Your task to perform on an android device: Open Amazon Image 0: 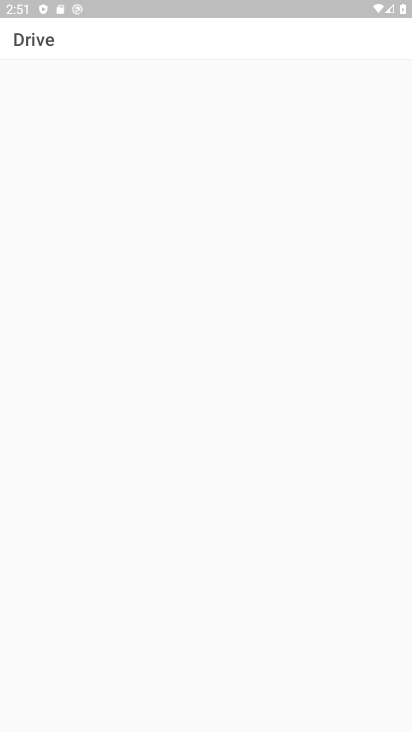
Step 0: press home button
Your task to perform on an android device: Open Amazon Image 1: 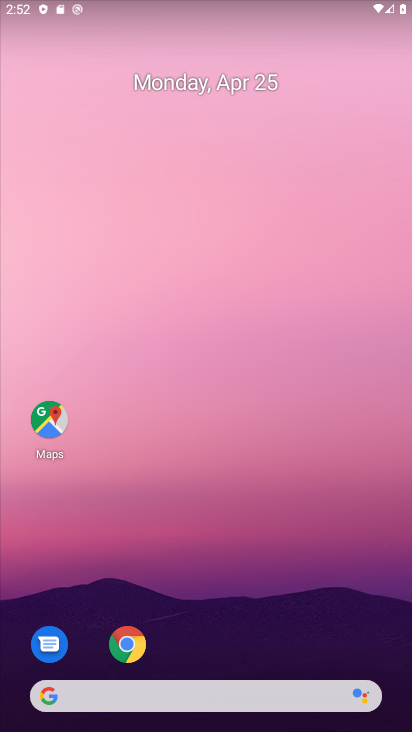
Step 1: click (129, 641)
Your task to perform on an android device: Open Amazon Image 2: 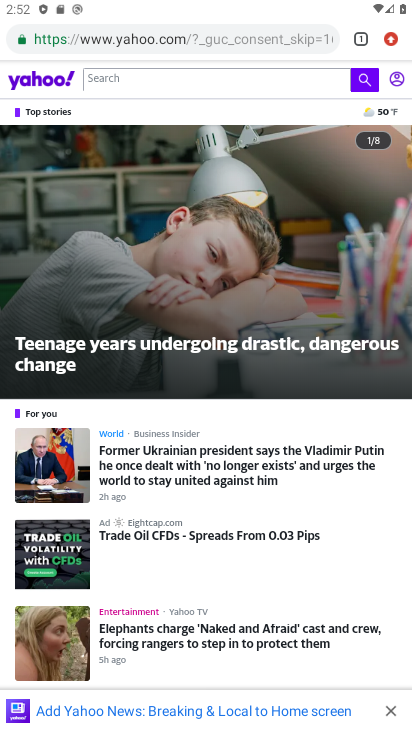
Step 2: click (322, 46)
Your task to perform on an android device: Open Amazon Image 3: 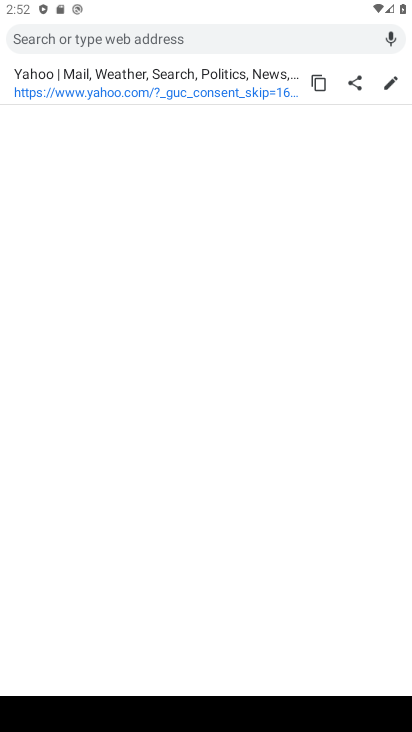
Step 3: type "Amazon"
Your task to perform on an android device: Open Amazon Image 4: 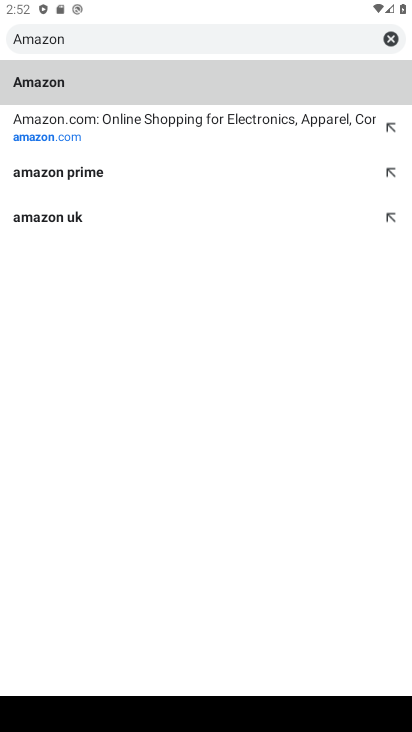
Step 4: click (33, 147)
Your task to perform on an android device: Open Amazon Image 5: 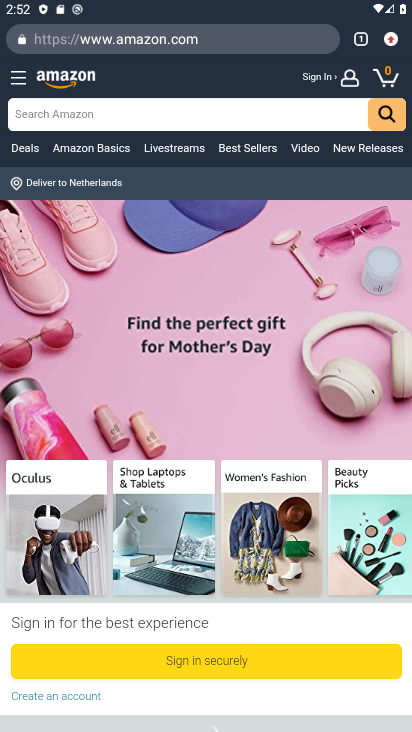
Step 5: task complete